Your task to perform on an android device: turn on showing notifications on the lock screen Image 0: 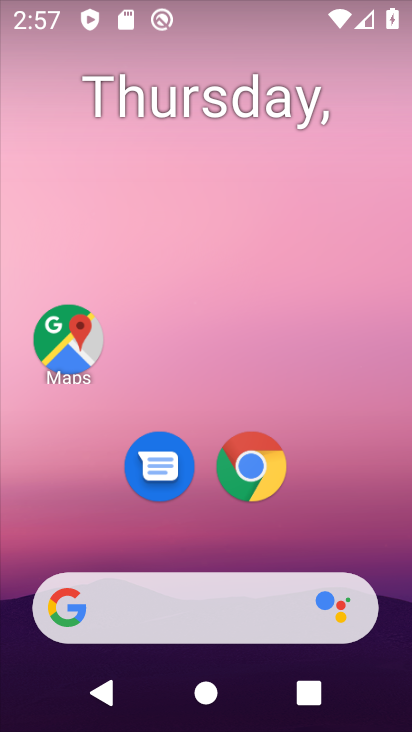
Step 0: drag from (236, 424) to (403, 566)
Your task to perform on an android device: turn on showing notifications on the lock screen Image 1: 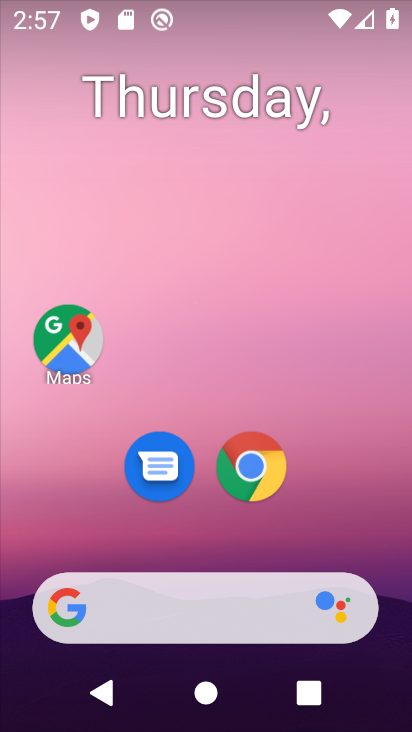
Step 1: drag from (175, 545) to (156, 21)
Your task to perform on an android device: turn on showing notifications on the lock screen Image 2: 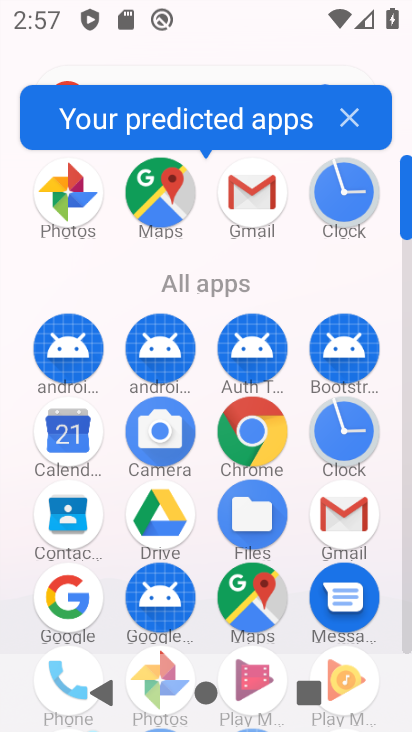
Step 2: drag from (198, 572) to (182, 93)
Your task to perform on an android device: turn on showing notifications on the lock screen Image 3: 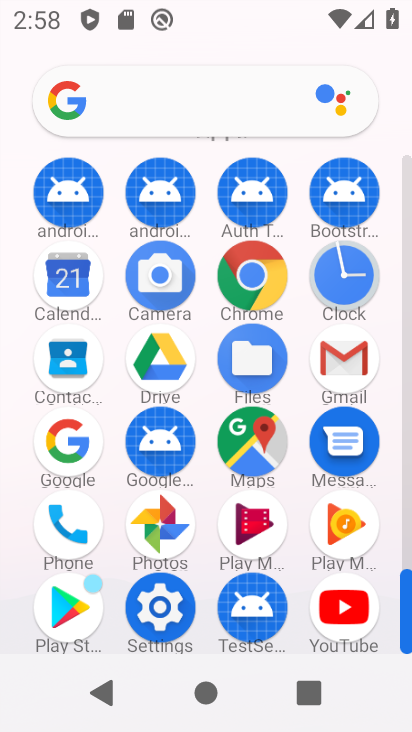
Step 3: click (157, 611)
Your task to perform on an android device: turn on showing notifications on the lock screen Image 4: 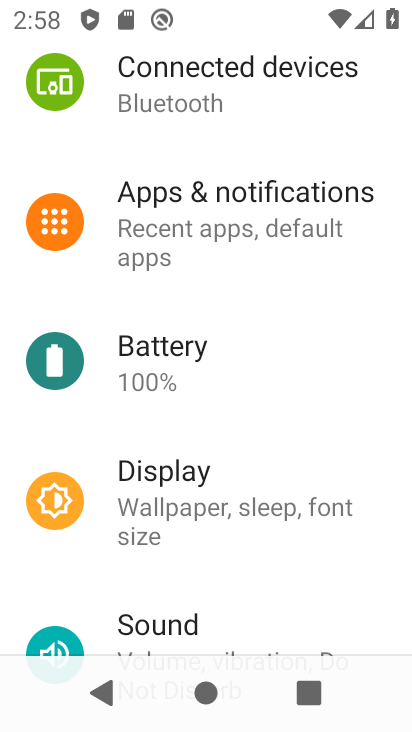
Step 4: click (190, 185)
Your task to perform on an android device: turn on showing notifications on the lock screen Image 5: 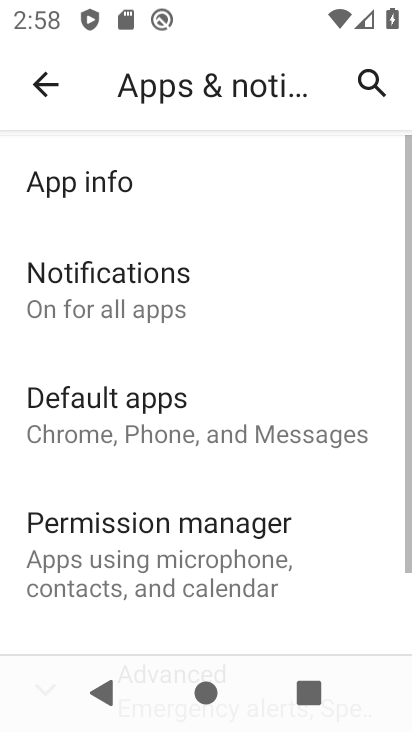
Step 5: click (166, 306)
Your task to perform on an android device: turn on showing notifications on the lock screen Image 6: 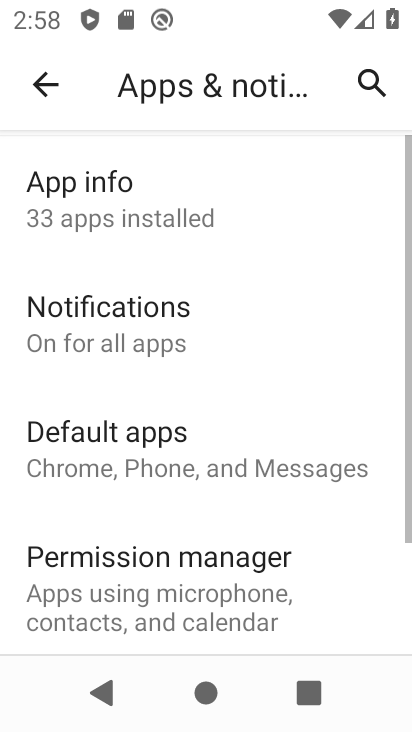
Step 6: drag from (200, 567) to (183, 72)
Your task to perform on an android device: turn on showing notifications on the lock screen Image 7: 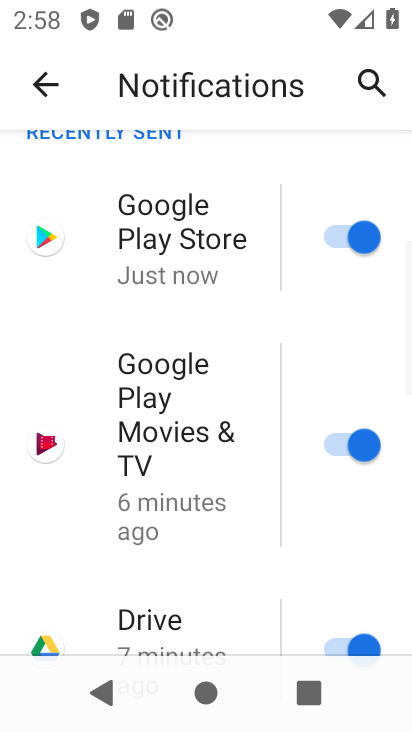
Step 7: drag from (183, 601) to (126, 187)
Your task to perform on an android device: turn on showing notifications on the lock screen Image 8: 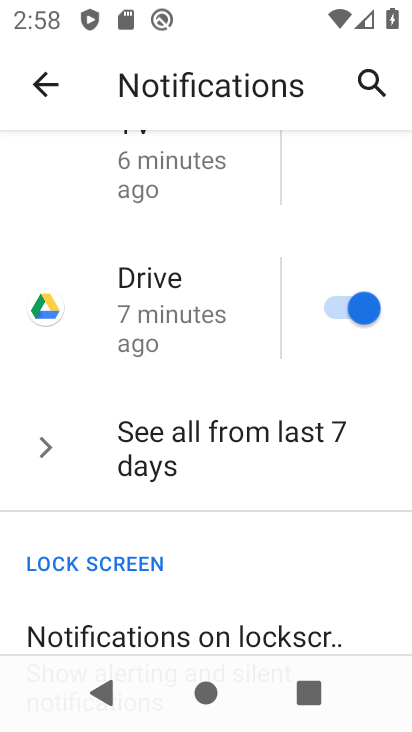
Step 8: click (132, 606)
Your task to perform on an android device: turn on showing notifications on the lock screen Image 9: 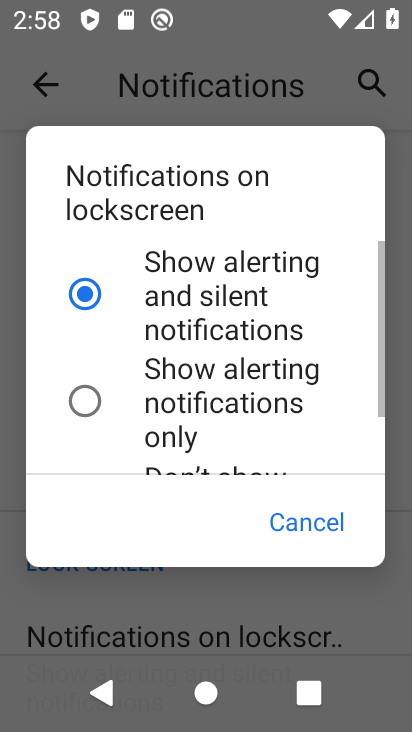
Step 9: click (192, 248)
Your task to perform on an android device: turn on showing notifications on the lock screen Image 10: 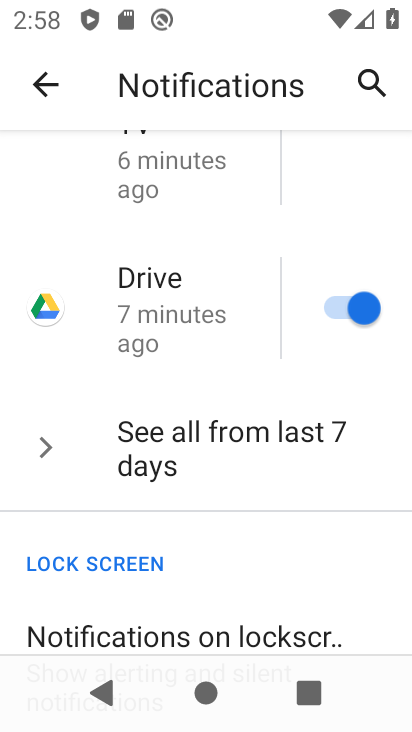
Step 10: task complete